Your task to perform on an android device: open the mobile data screen to see how much data has been used Image 0: 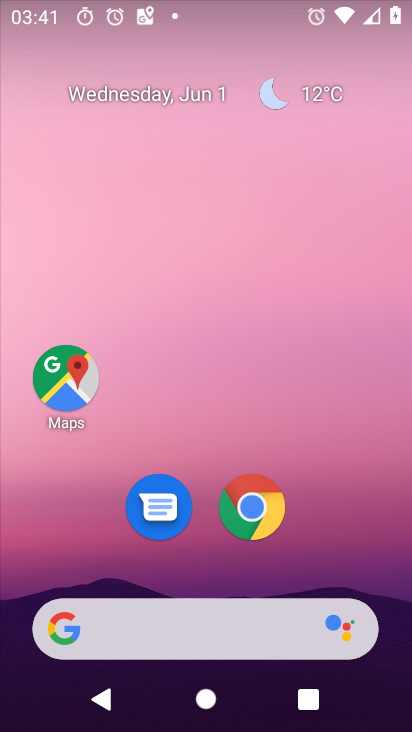
Step 0: drag from (346, 584) to (411, 511)
Your task to perform on an android device: open the mobile data screen to see how much data has been used Image 1: 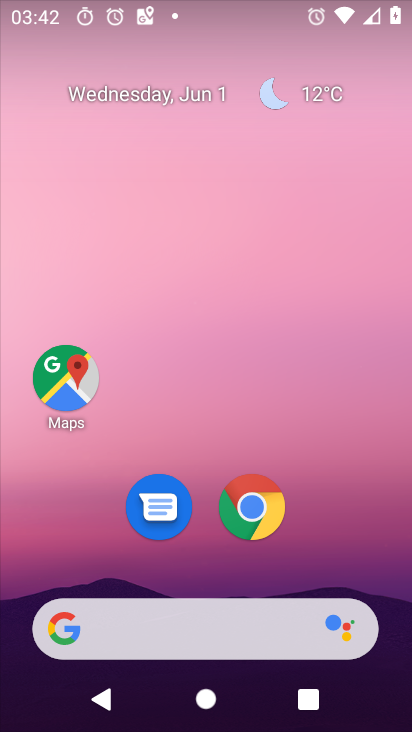
Step 1: drag from (321, 593) to (248, 12)
Your task to perform on an android device: open the mobile data screen to see how much data has been used Image 2: 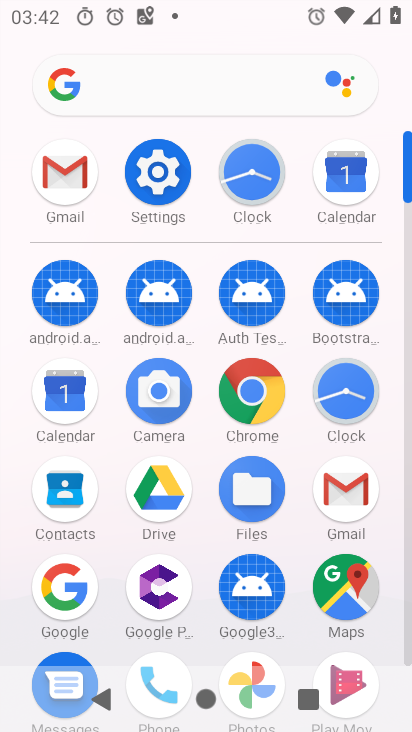
Step 2: click (152, 160)
Your task to perform on an android device: open the mobile data screen to see how much data has been used Image 3: 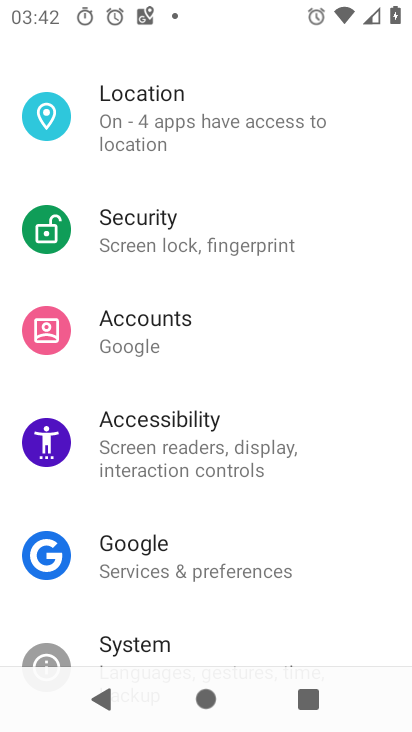
Step 3: drag from (319, 219) to (314, 430)
Your task to perform on an android device: open the mobile data screen to see how much data has been used Image 4: 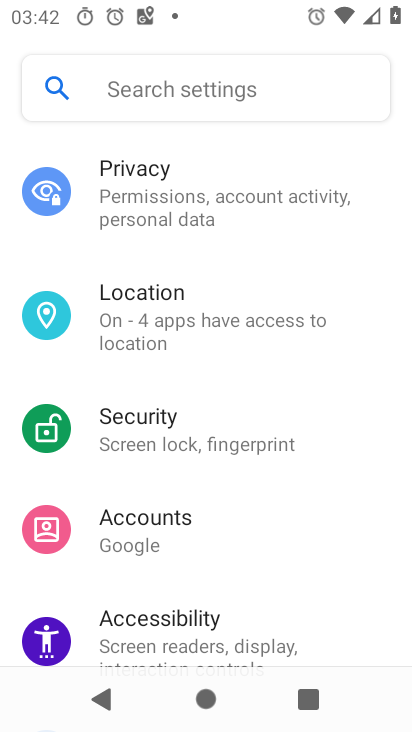
Step 4: drag from (317, 231) to (288, 525)
Your task to perform on an android device: open the mobile data screen to see how much data has been used Image 5: 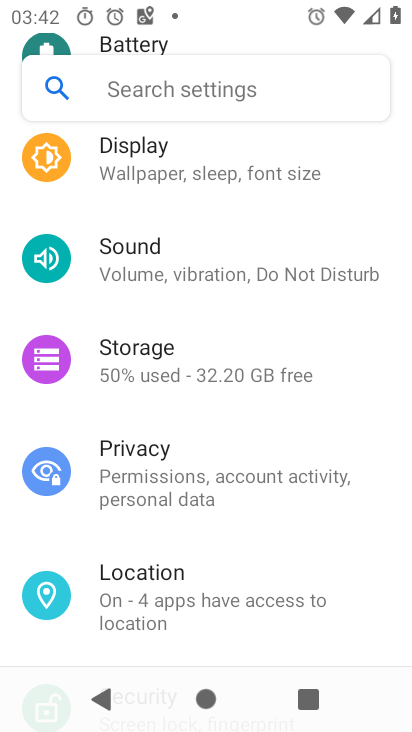
Step 5: drag from (315, 214) to (283, 515)
Your task to perform on an android device: open the mobile data screen to see how much data has been used Image 6: 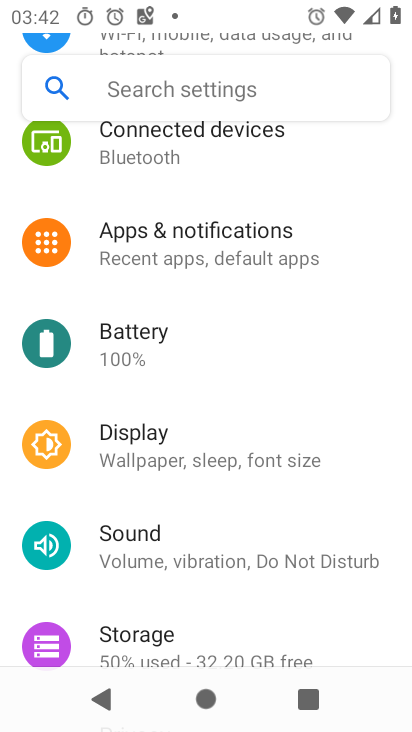
Step 6: drag from (280, 178) to (272, 464)
Your task to perform on an android device: open the mobile data screen to see how much data has been used Image 7: 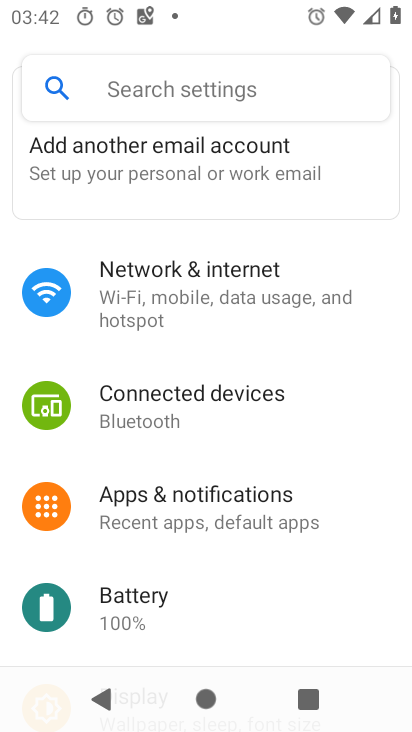
Step 7: click (201, 293)
Your task to perform on an android device: open the mobile data screen to see how much data has been used Image 8: 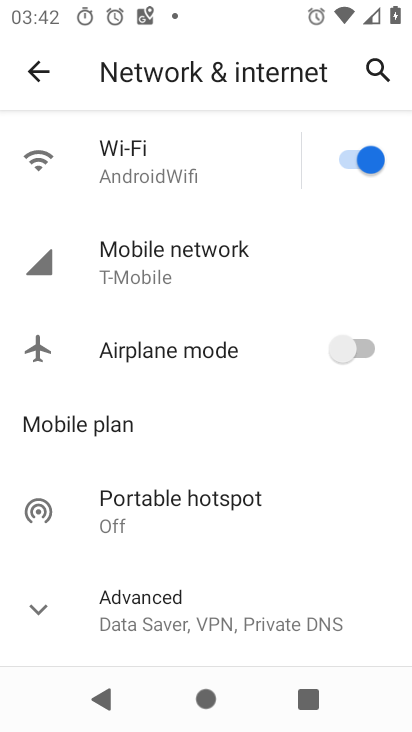
Step 8: click (142, 279)
Your task to perform on an android device: open the mobile data screen to see how much data has been used Image 9: 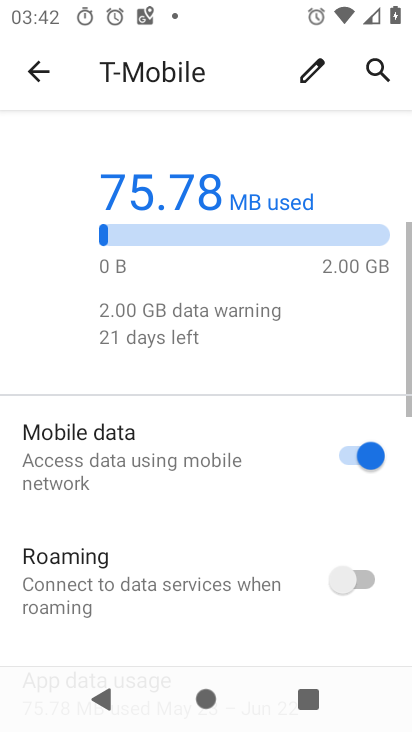
Step 9: drag from (138, 538) to (161, 159)
Your task to perform on an android device: open the mobile data screen to see how much data has been used Image 10: 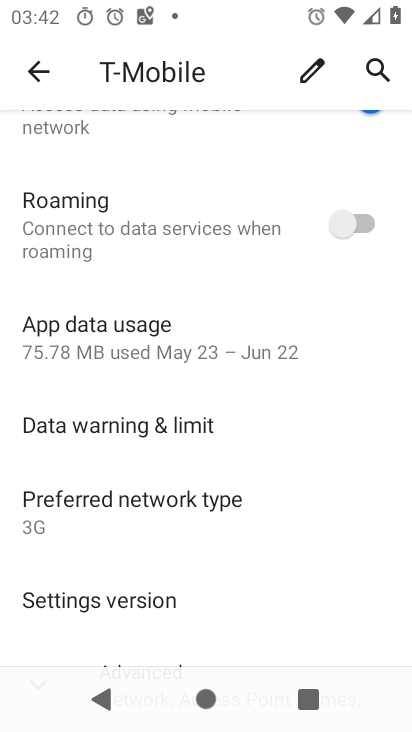
Step 10: click (117, 347)
Your task to perform on an android device: open the mobile data screen to see how much data has been used Image 11: 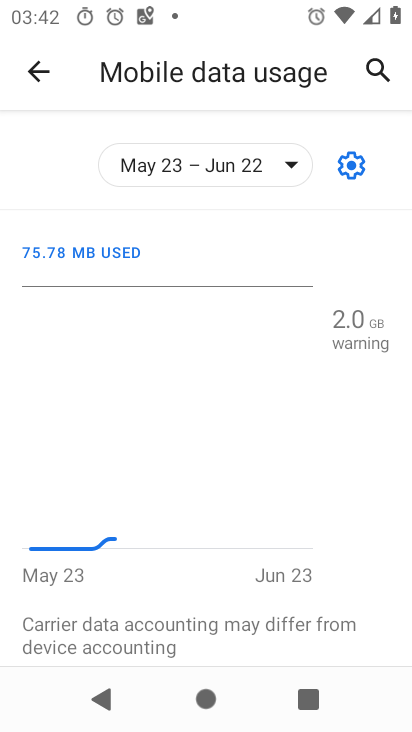
Step 11: task complete